Your task to perform on an android device: install app "NewsBreak: Local News & Alerts" Image 0: 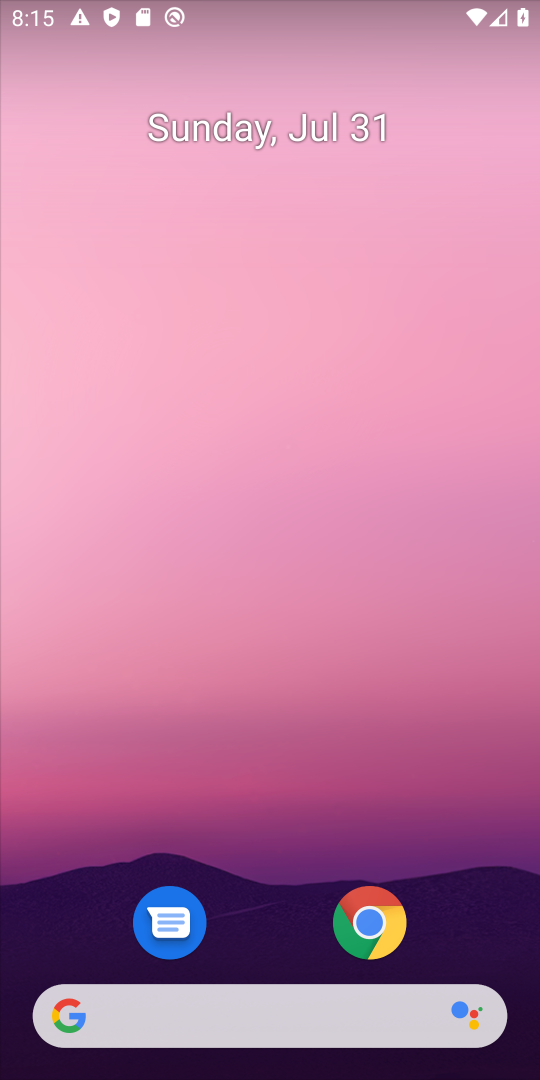
Step 0: press home button
Your task to perform on an android device: install app "NewsBreak: Local News & Alerts" Image 1: 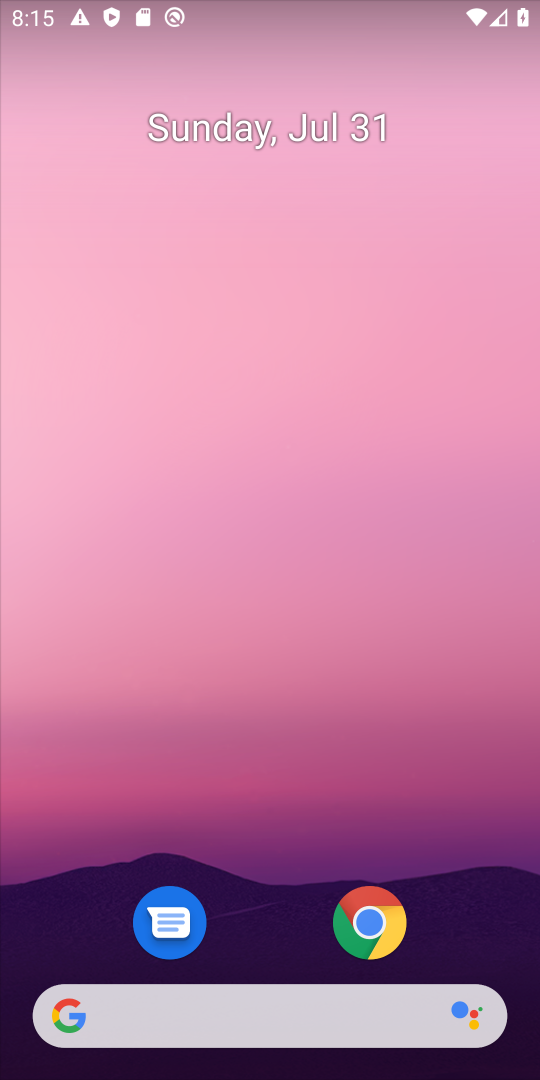
Step 1: drag from (309, 1000) to (289, 125)
Your task to perform on an android device: install app "NewsBreak: Local News & Alerts" Image 2: 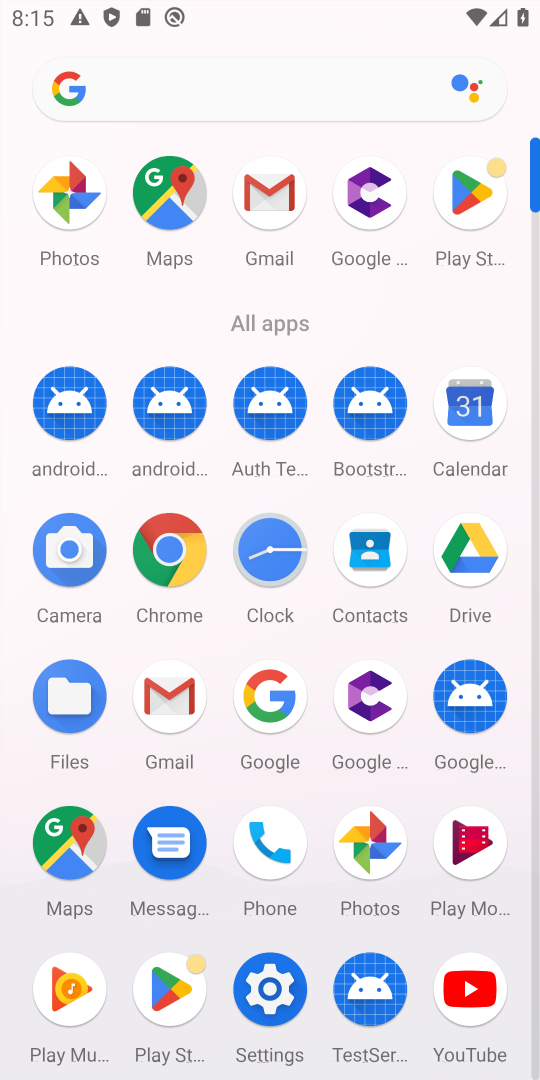
Step 2: click (184, 996)
Your task to perform on an android device: install app "NewsBreak: Local News & Alerts" Image 3: 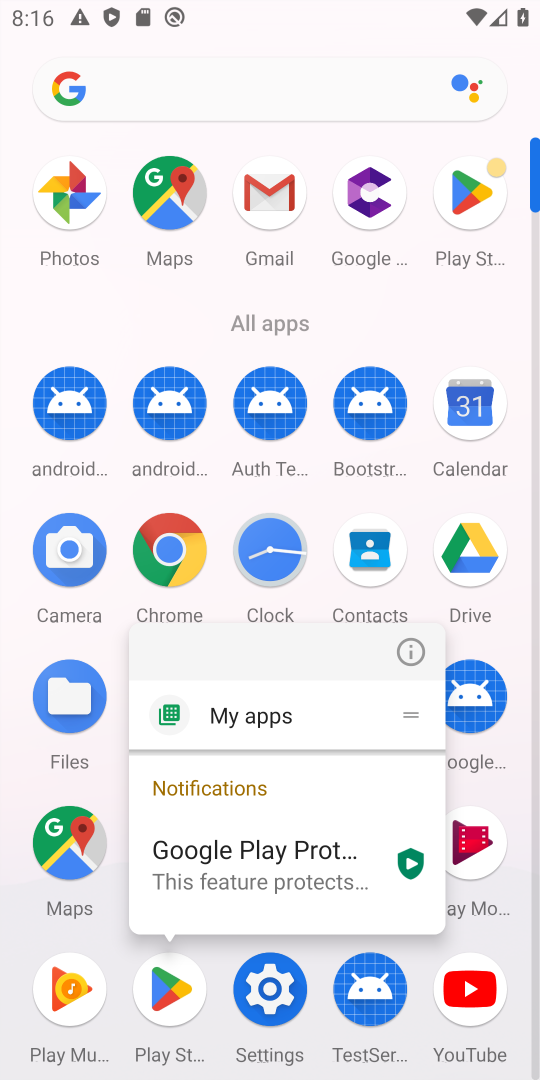
Step 3: click (177, 975)
Your task to perform on an android device: install app "NewsBreak: Local News & Alerts" Image 4: 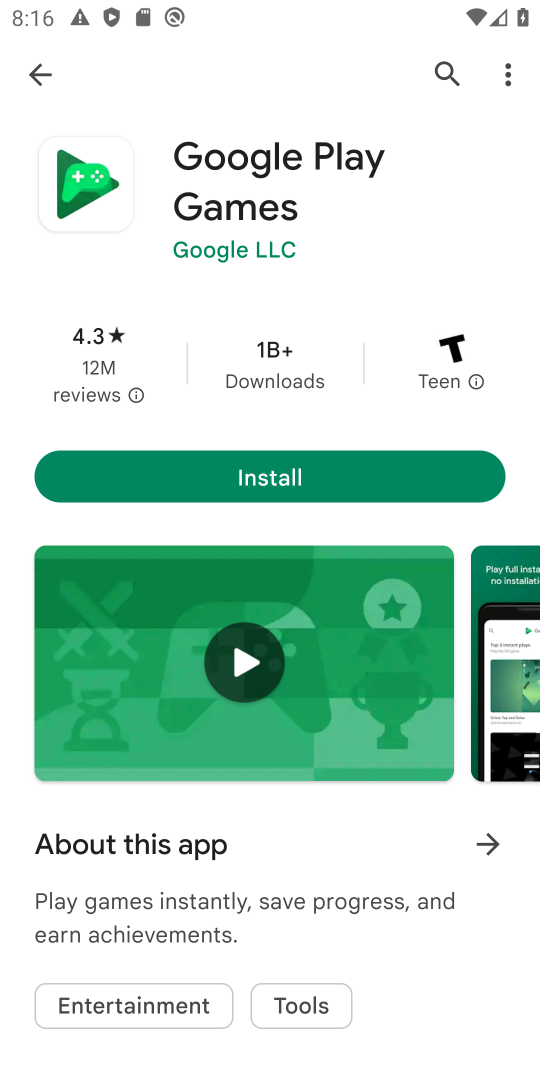
Step 4: click (449, 64)
Your task to perform on an android device: install app "NewsBreak: Local News & Alerts" Image 5: 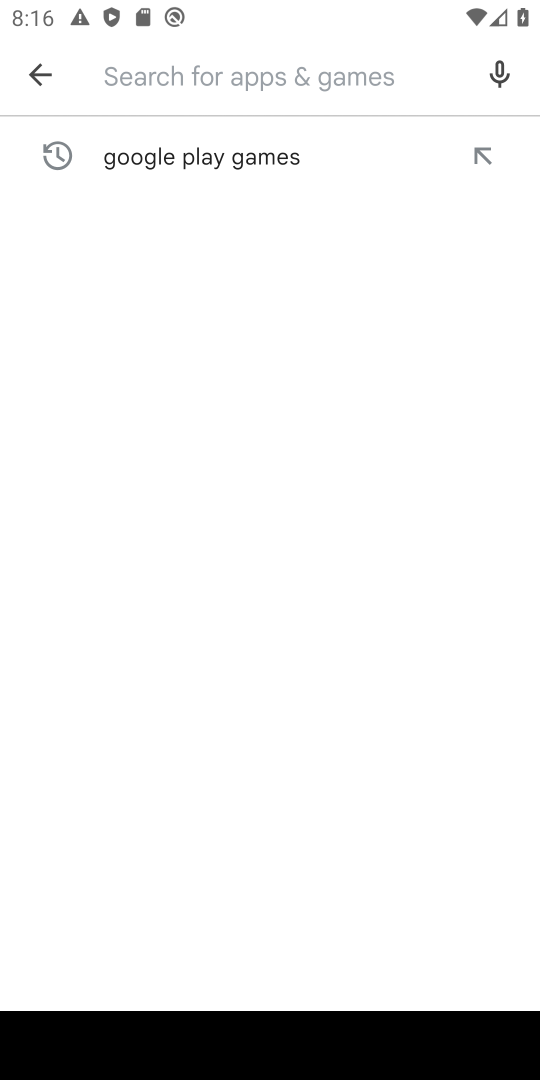
Step 5: type "NewsBreak: Local News & Alerts"
Your task to perform on an android device: install app "NewsBreak: Local News & Alerts" Image 6: 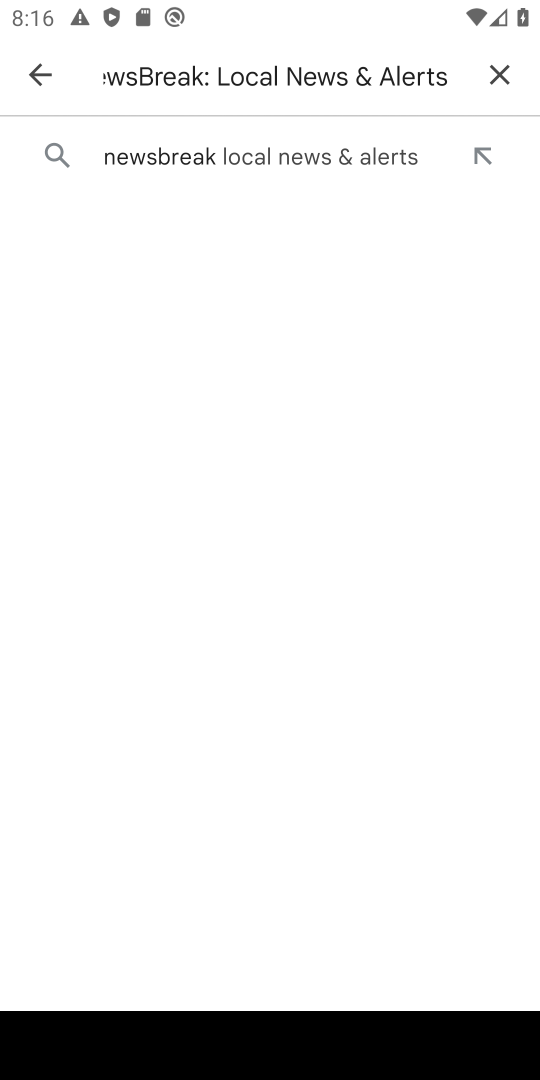
Step 6: click (282, 159)
Your task to perform on an android device: install app "NewsBreak: Local News & Alerts" Image 7: 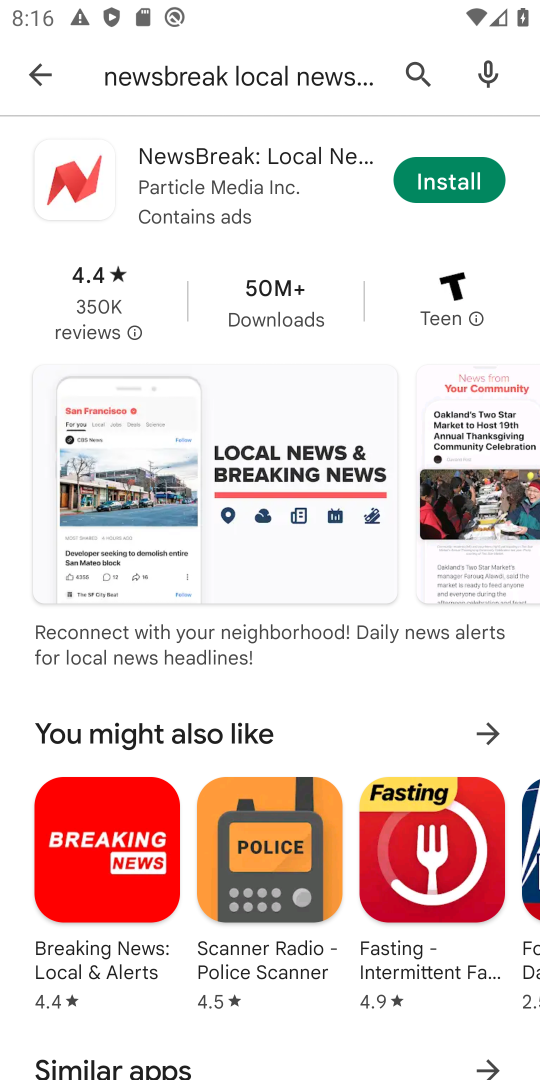
Step 7: click (474, 181)
Your task to perform on an android device: install app "NewsBreak: Local News & Alerts" Image 8: 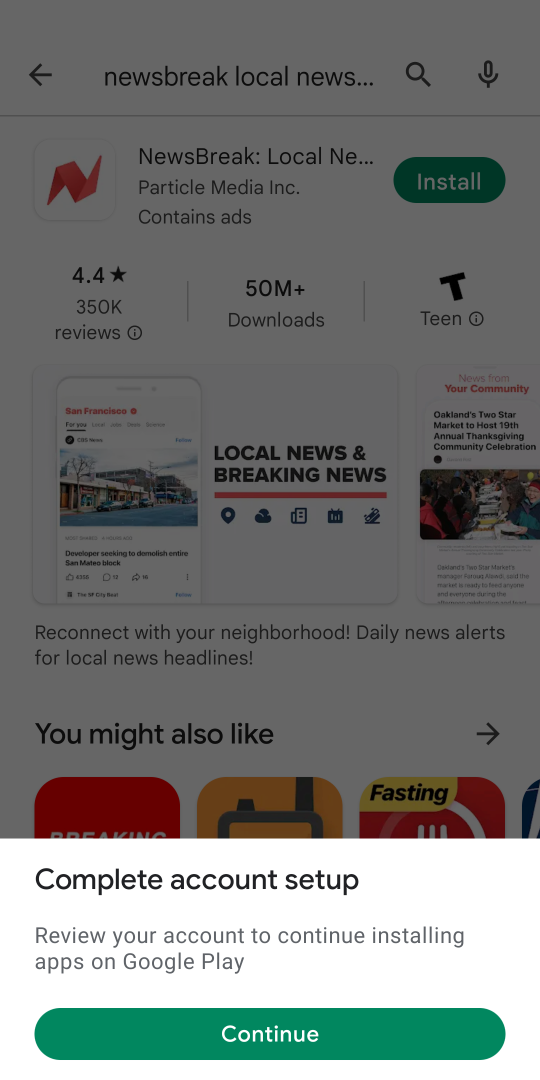
Step 8: click (307, 1023)
Your task to perform on an android device: install app "NewsBreak: Local News & Alerts" Image 9: 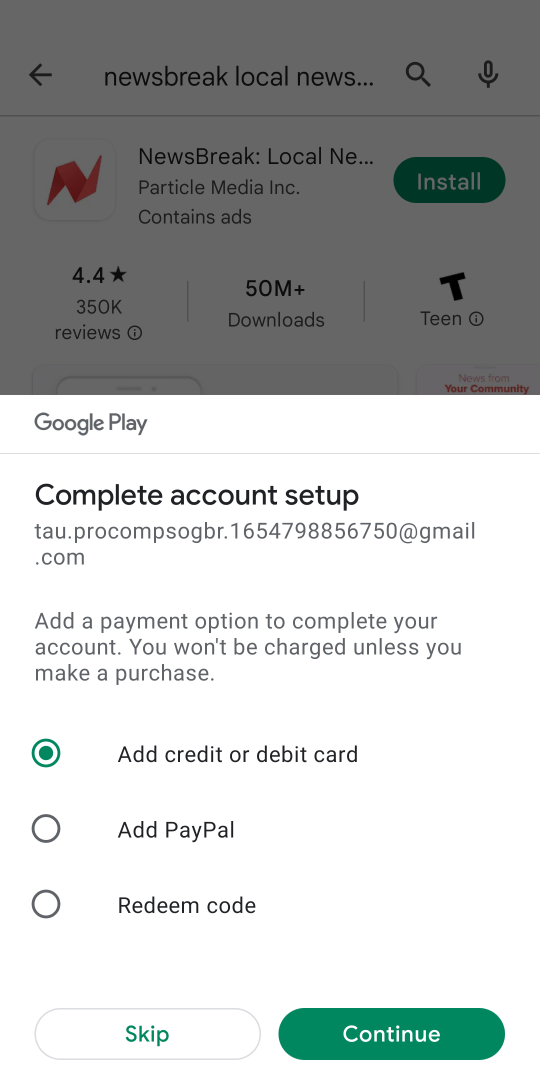
Step 9: click (163, 1038)
Your task to perform on an android device: install app "NewsBreak: Local News & Alerts" Image 10: 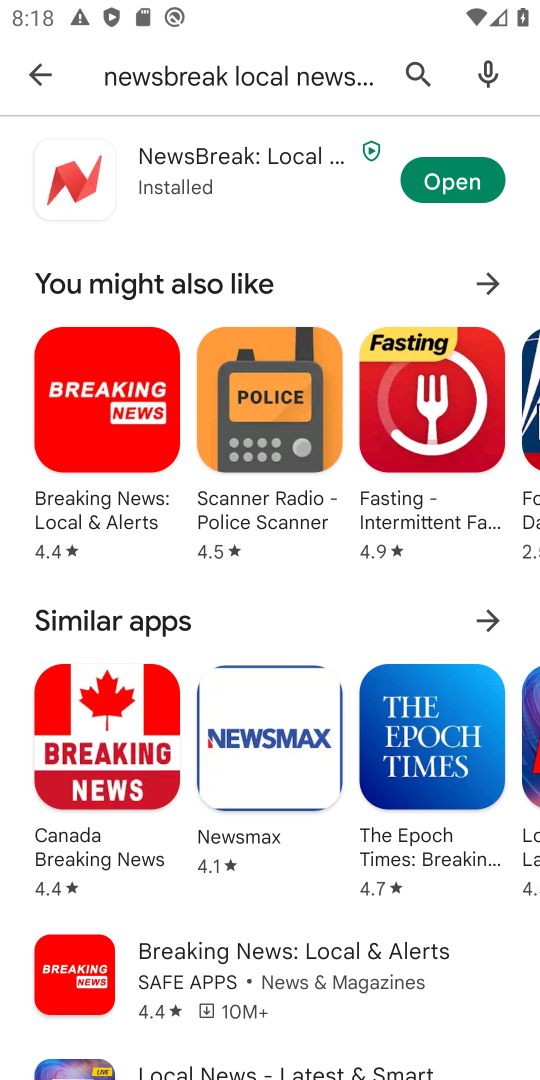
Step 10: task complete